Your task to perform on an android device: Open Google Chrome Image 0: 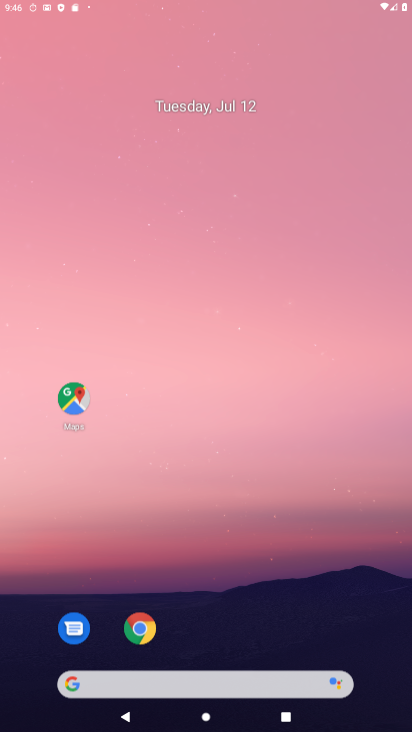
Step 0: click (220, 314)
Your task to perform on an android device: Open Google Chrome Image 1: 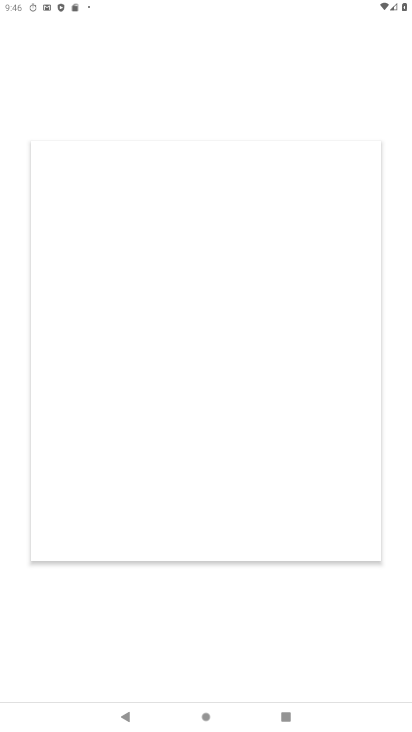
Step 1: press back button
Your task to perform on an android device: Open Google Chrome Image 2: 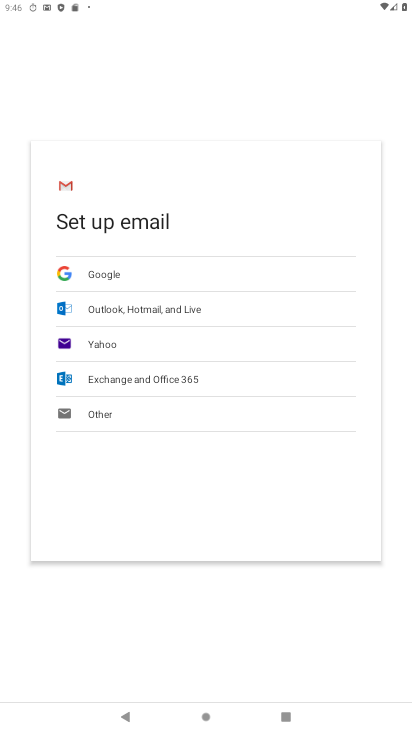
Step 2: click (257, 110)
Your task to perform on an android device: Open Google Chrome Image 3: 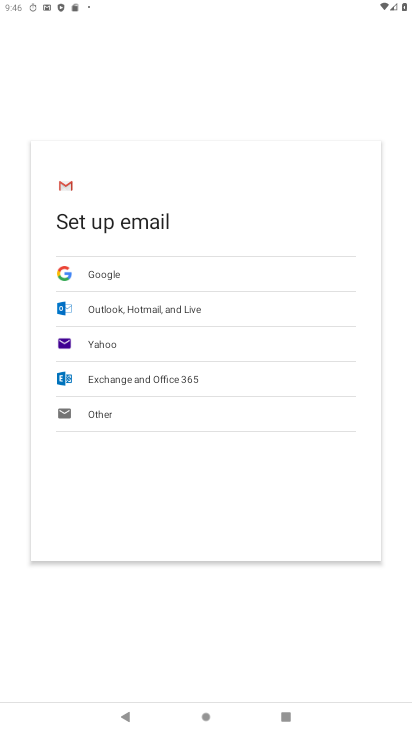
Step 3: press home button
Your task to perform on an android device: Open Google Chrome Image 4: 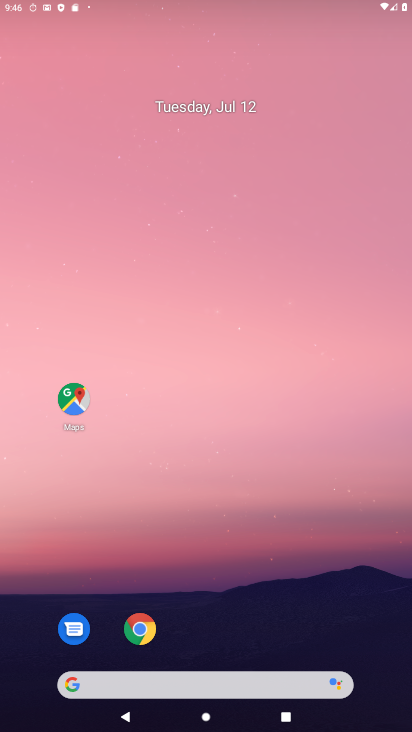
Step 4: drag from (348, 612) to (202, 113)
Your task to perform on an android device: Open Google Chrome Image 5: 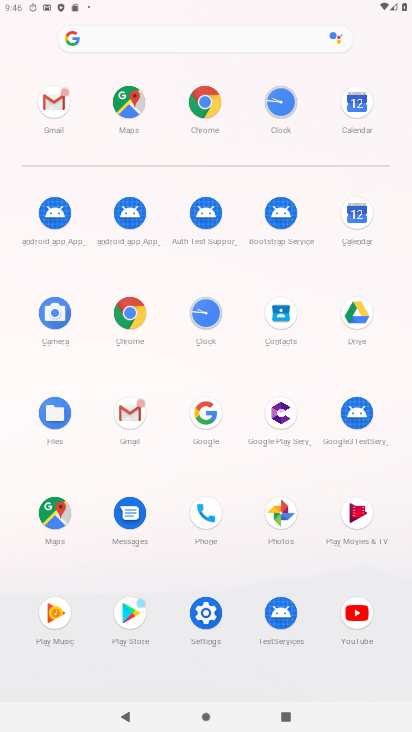
Step 5: click (131, 319)
Your task to perform on an android device: Open Google Chrome Image 6: 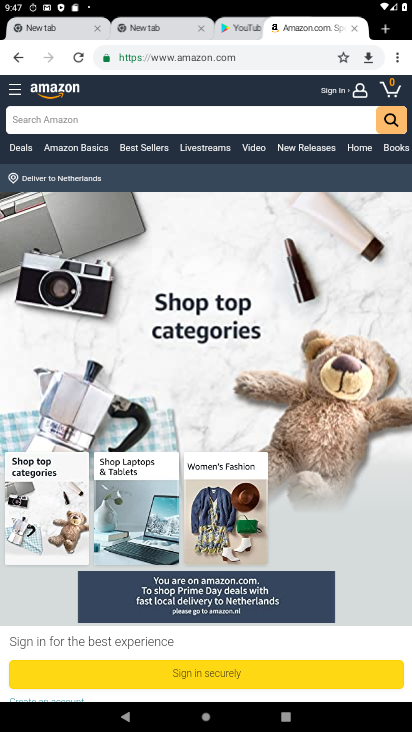
Step 6: click (401, 62)
Your task to perform on an android device: Open Google Chrome Image 7: 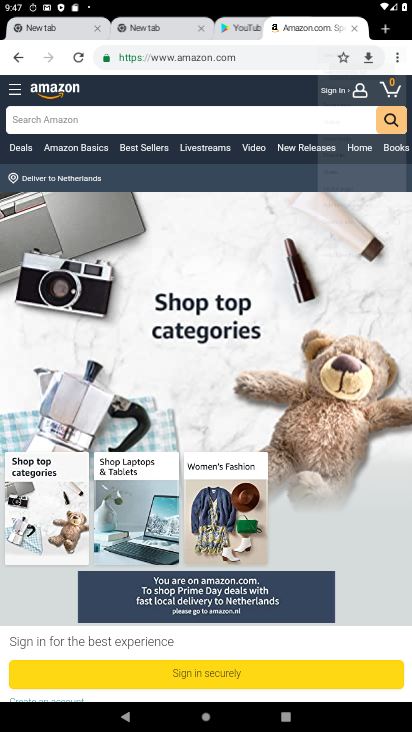
Step 7: drag from (239, 264) to (284, 374)
Your task to perform on an android device: Open Google Chrome Image 8: 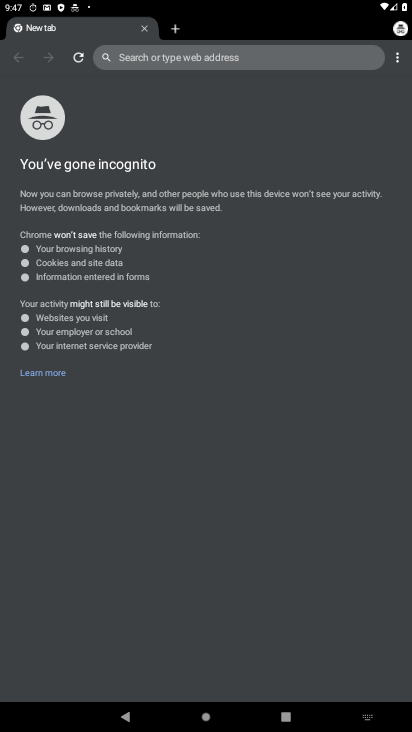
Step 8: click (401, 56)
Your task to perform on an android device: Open Google Chrome Image 9: 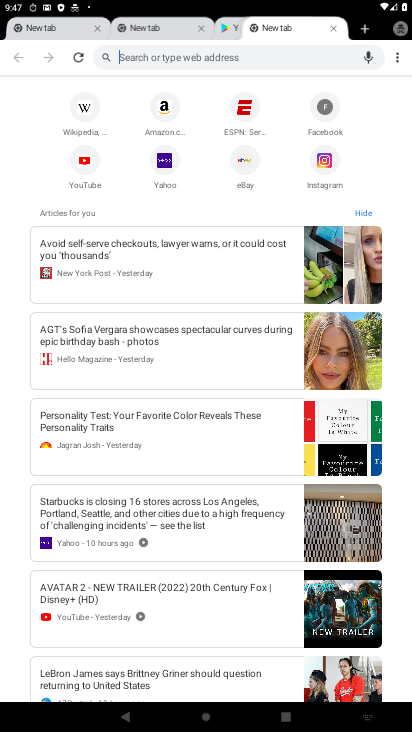
Step 9: click (404, 56)
Your task to perform on an android device: Open Google Chrome Image 10: 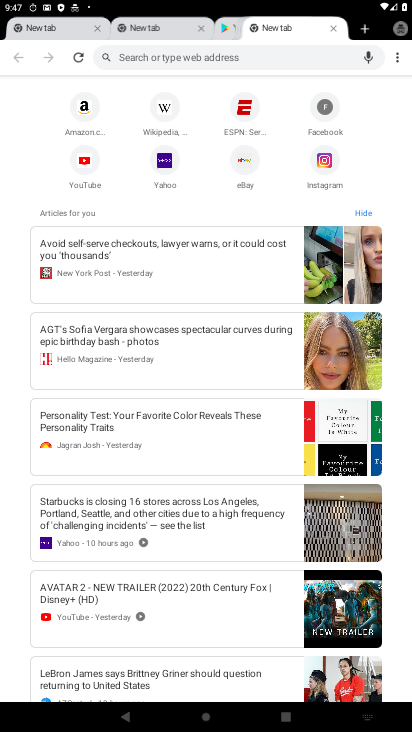
Step 10: task complete